Your task to perform on an android device: see sites visited before in the chrome app Image 0: 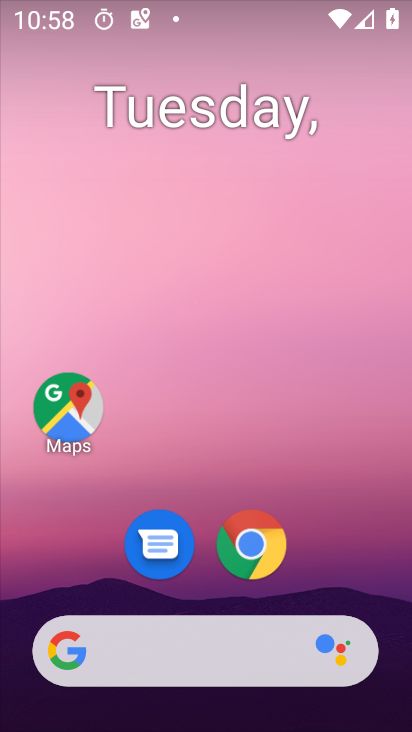
Step 0: click (273, 565)
Your task to perform on an android device: see sites visited before in the chrome app Image 1: 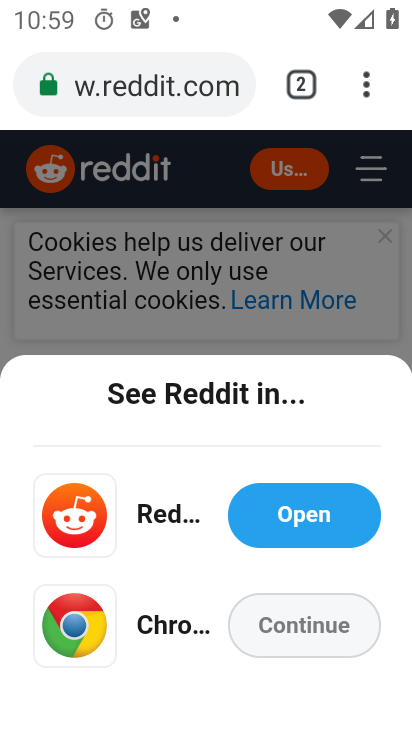
Step 1: click (375, 94)
Your task to perform on an android device: see sites visited before in the chrome app Image 2: 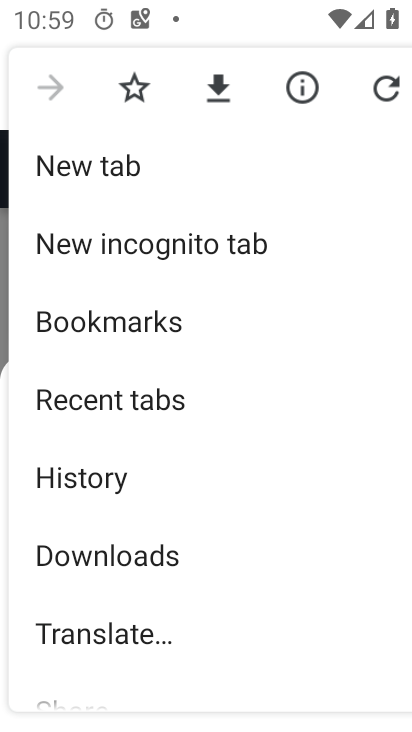
Step 2: click (96, 493)
Your task to perform on an android device: see sites visited before in the chrome app Image 3: 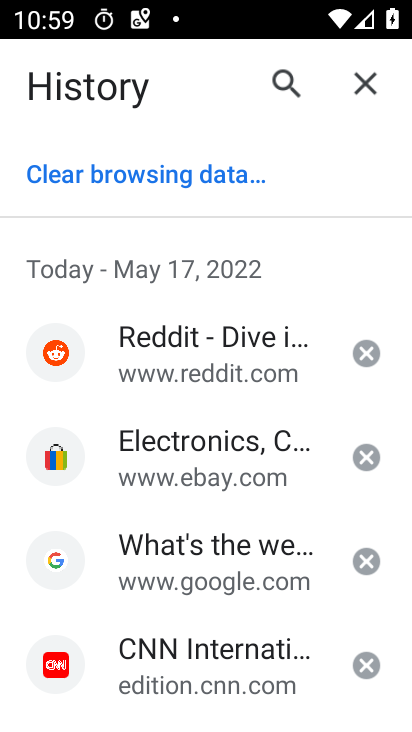
Step 3: task complete